Your task to perform on an android device: Open Google Chrome and click the shortcut for Amazon.com Image 0: 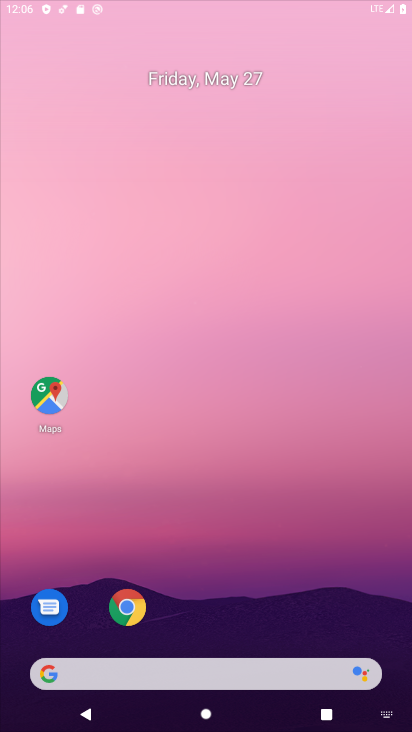
Step 0: press home button
Your task to perform on an android device: Open Google Chrome and click the shortcut for Amazon.com Image 1: 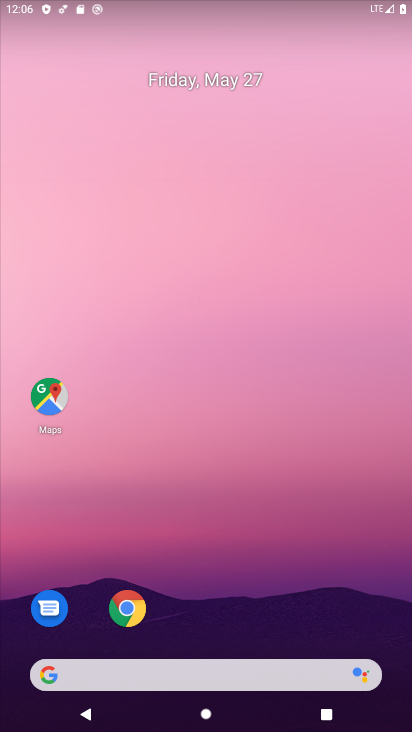
Step 1: click (129, 608)
Your task to perform on an android device: Open Google Chrome and click the shortcut for Amazon.com Image 2: 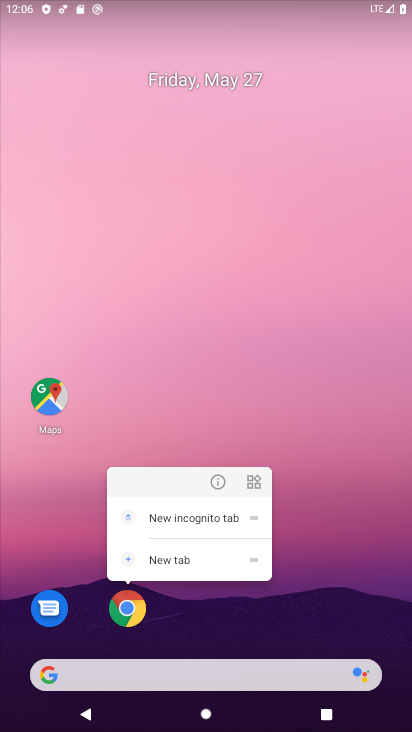
Step 2: click (134, 614)
Your task to perform on an android device: Open Google Chrome and click the shortcut for Amazon.com Image 3: 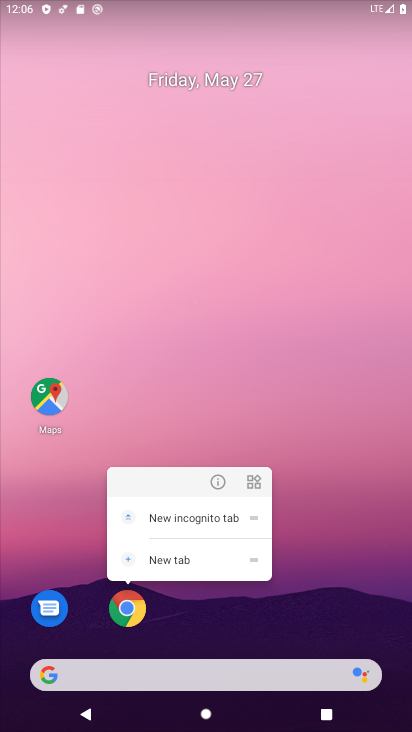
Step 3: click (130, 617)
Your task to perform on an android device: Open Google Chrome and click the shortcut for Amazon.com Image 4: 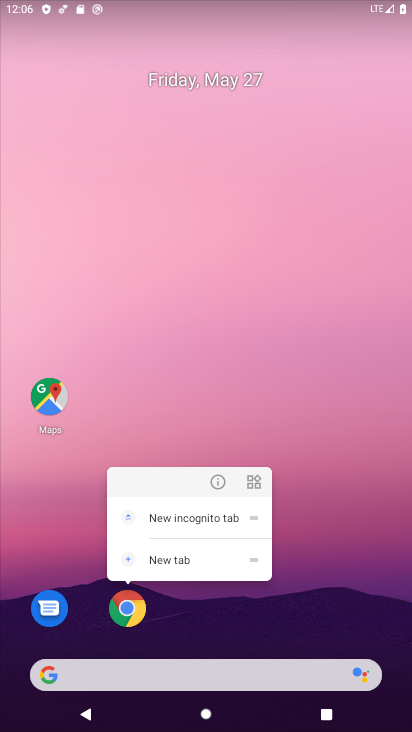
Step 4: click (127, 608)
Your task to perform on an android device: Open Google Chrome and click the shortcut for Amazon.com Image 5: 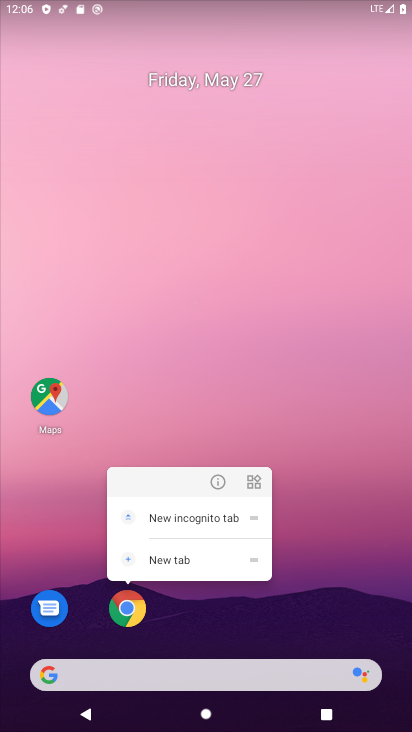
Step 5: click (127, 608)
Your task to perform on an android device: Open Google Chrome and click the shortcut for Amazon.com Image 6: 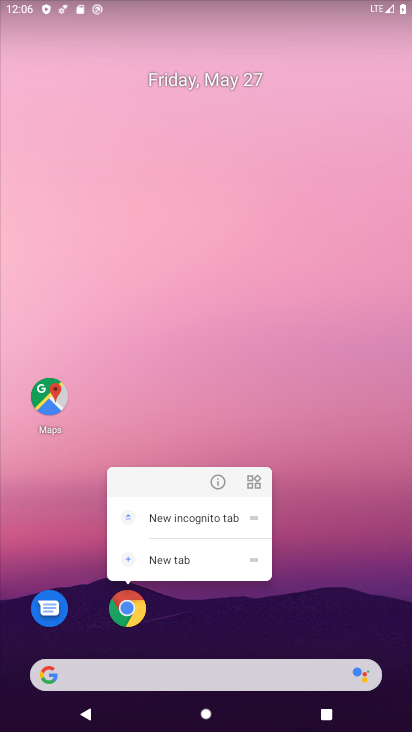
Step 6: click (127, 608)
Your task to perform on an android device: Open Google Chrome and click the shortcut for Amazon.com Image 7: 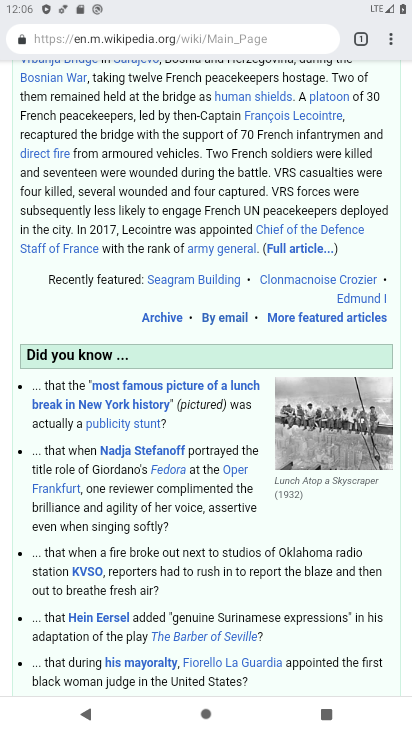
Step 7: drag from (391, 37) to (279, 71)
Your task to perform on an android device: Open Google Chrome and click the shortcut for Amazon.com Image 8: 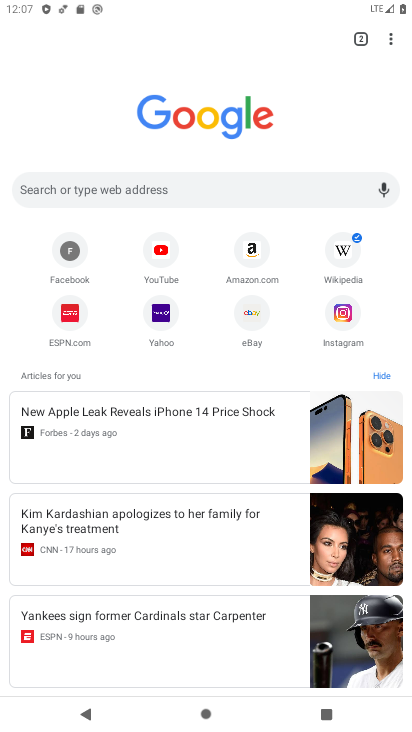
Step 8: click (257, 253)
Your task to perform on an android device: Open Google Chrome and click the shortcut for Amazon.com Image 9: 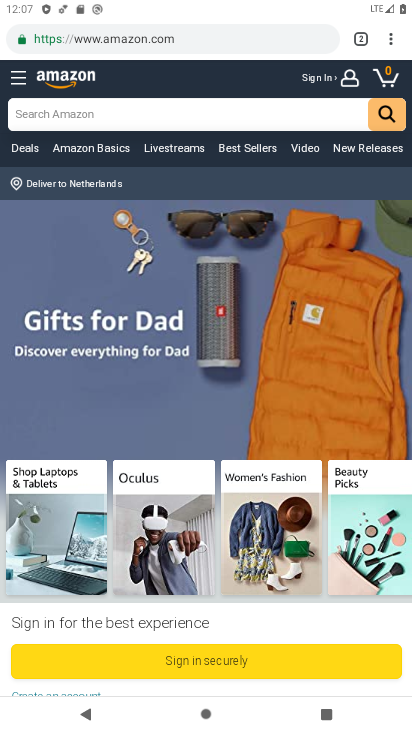
Step 9: task complete